Your task to perform on an android device: What's the weather going to be this weekend? Image 0: 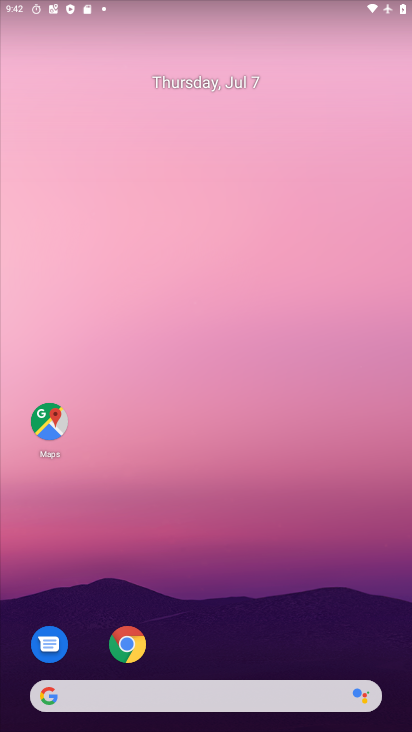
Step 0: drag from (284, 594) to (249, 175)
Your task to perform on an android device: What's the weather going to be this weekend? Image 1: 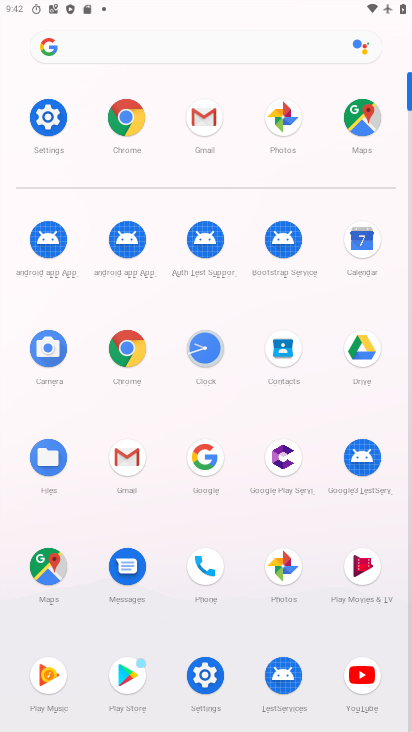
Step 1: click (130, 123)
Your task to perform on an android device: What's the weather going to be this weekend? Image 2: 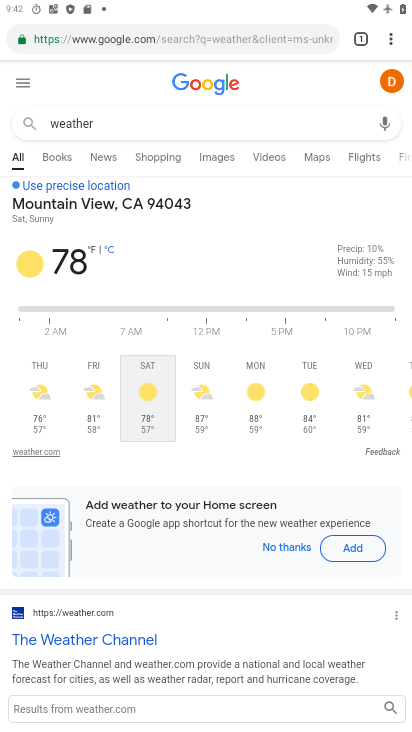
Step 2: task complete